Your task to perform on an android device: toggle sleep mode Image 0: 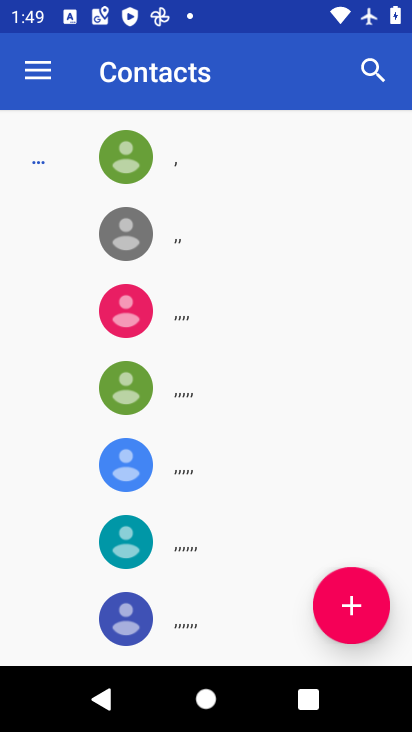
Step 0: press home button
Your task to perform on an android device: toggle sleep mode Image 1: 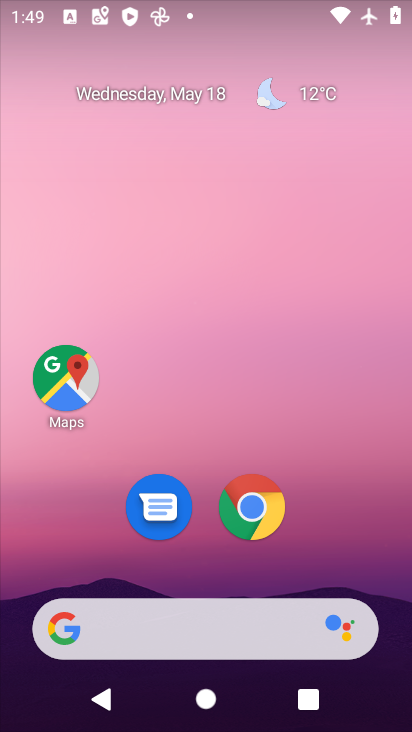
Step 1: drag from (389, 619) to (311, 89)
Your task to perform on an android device: toggle sleep mode Image 2: 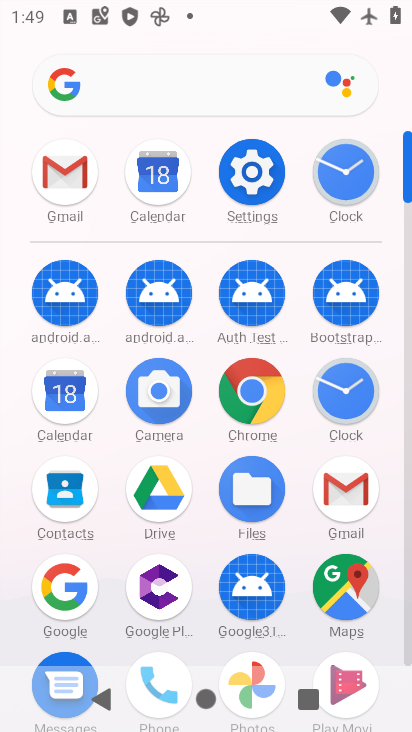
Step 2: click (406, 649)
Your task to perform on an android device: toggle sleep mode Image 3: 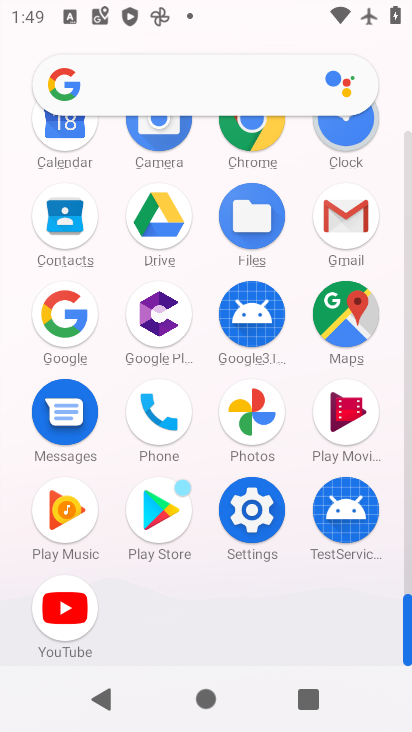
Step 3: click (268, 522)
Your task to perform on an android device: toggle sleep mode Image 4: 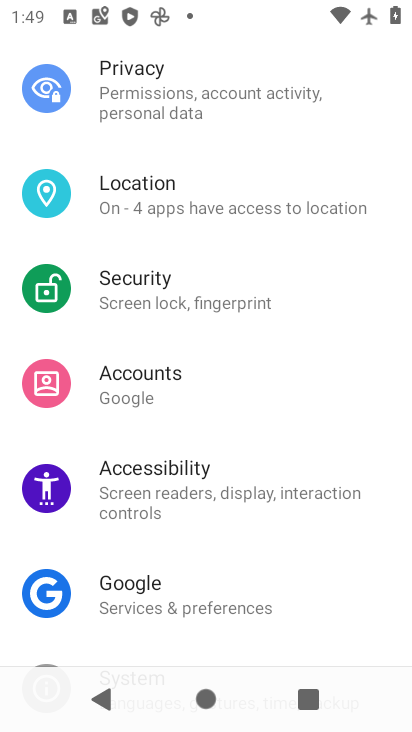
Step 4: drag from (225, 151) to (263, 470)
Your task to perform on an android device: toggle sleep mode Image 5: 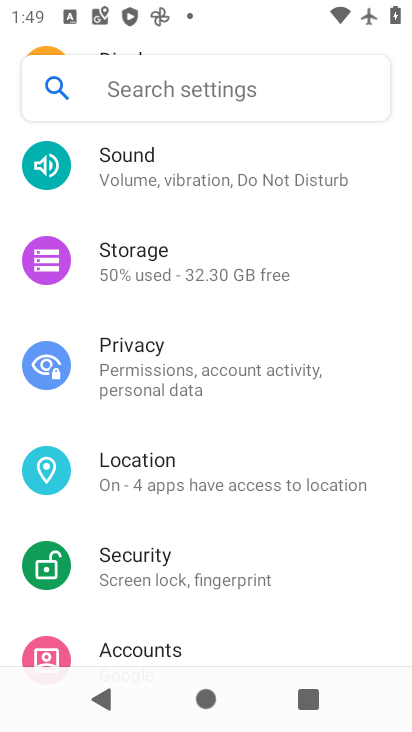
Step 5: drag from (311, 231) to (292, 482)
Your task to perform on an android device: toggle sleep mode Image 6: 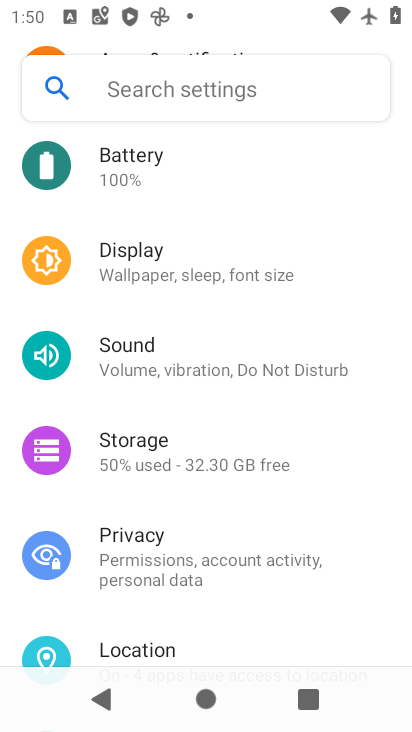
Step 6: click (154, 262)
Your task to perform on an android device: toggle sleep mode Image 7: 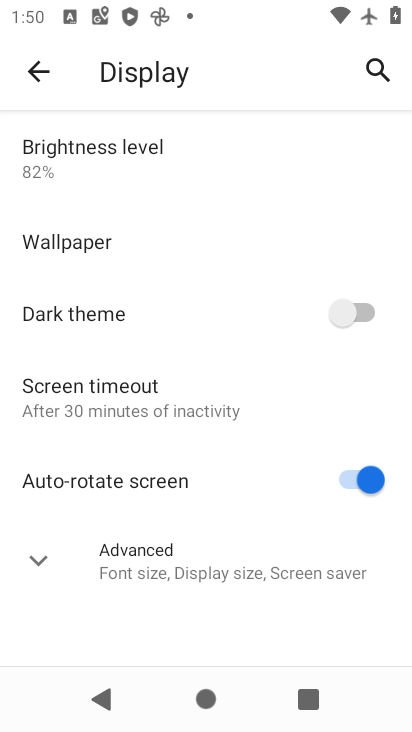
Step 7: click (29, 555)
Your task to perform on an android device: toggle sleep mode Image 8: 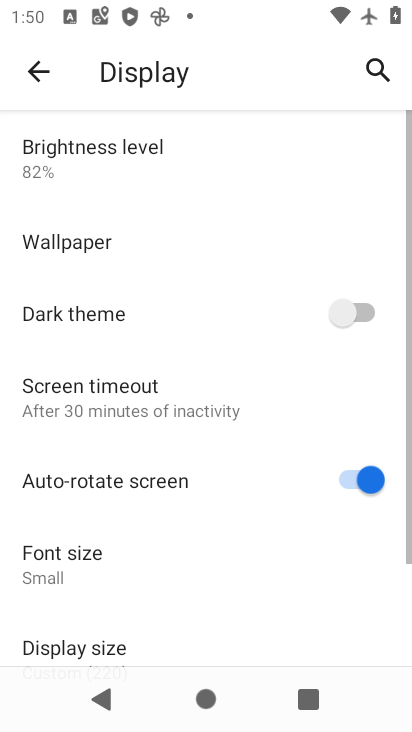
Step 8: task complete